Your task to perform on an android device: Go to Google Image 0: 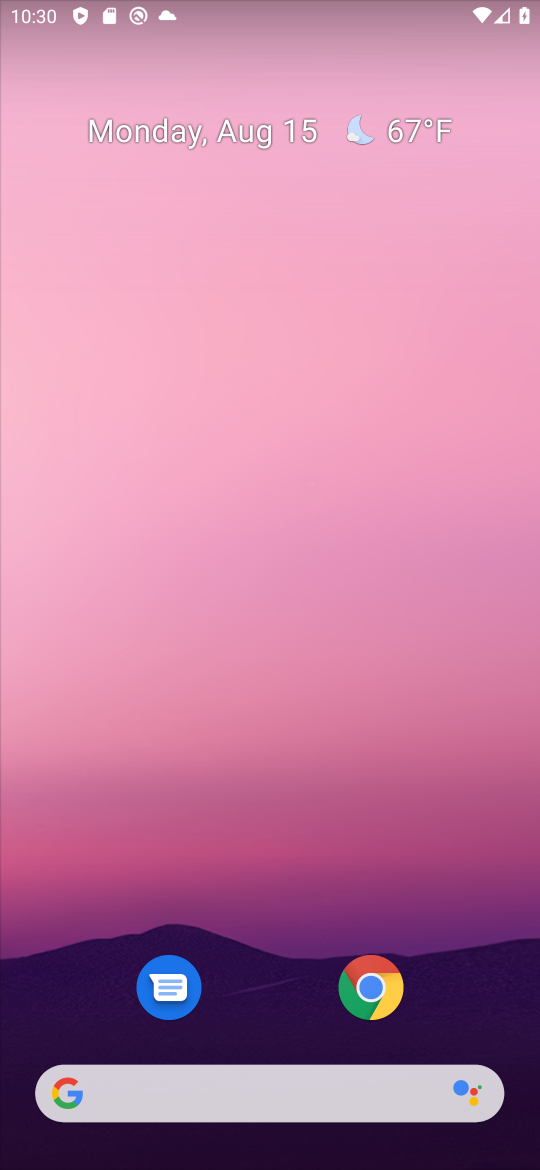
Step 0: drag from (269, 1068) to (272, 3)
Your task to perform on an android device: Go to Google Image 1: 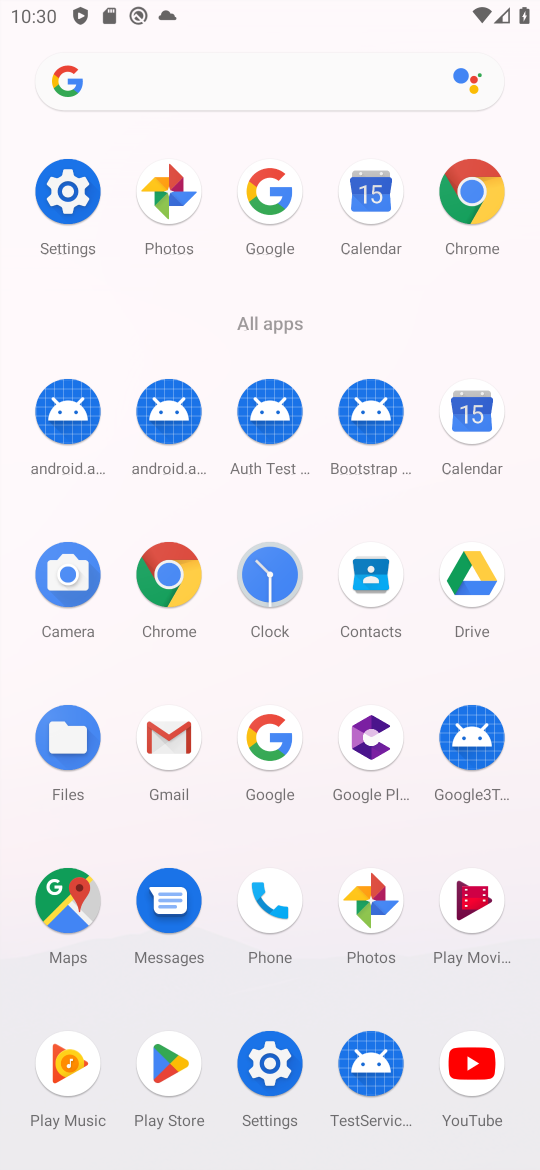
Step 1: click (266, 759)
Your task to perform on an android device: Go to Google Image 2: 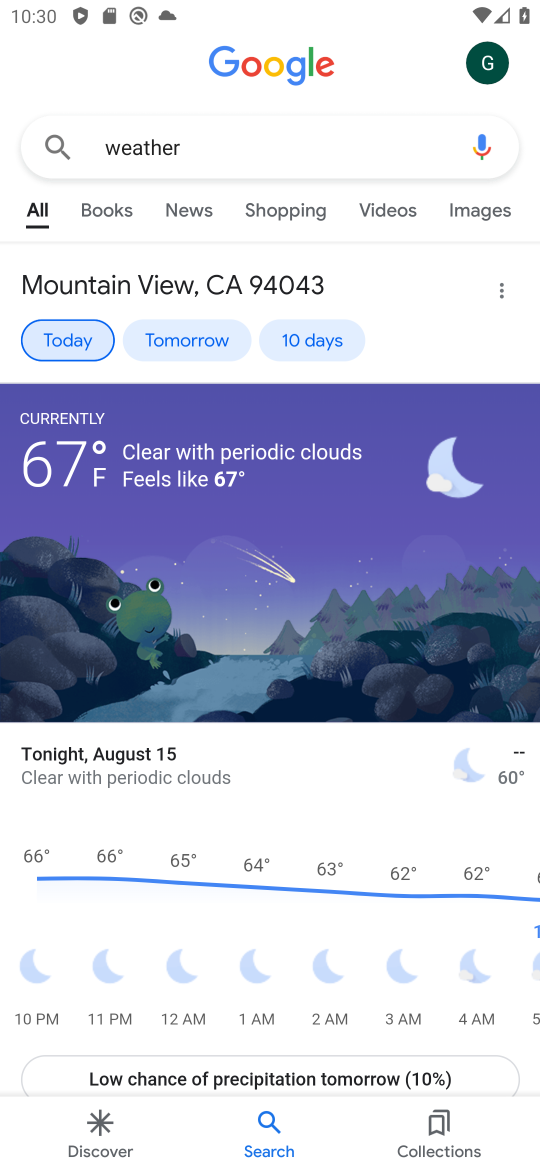
Step 2: task complete